Your task to perform on an android device: Toggle the flashlight Image 0: 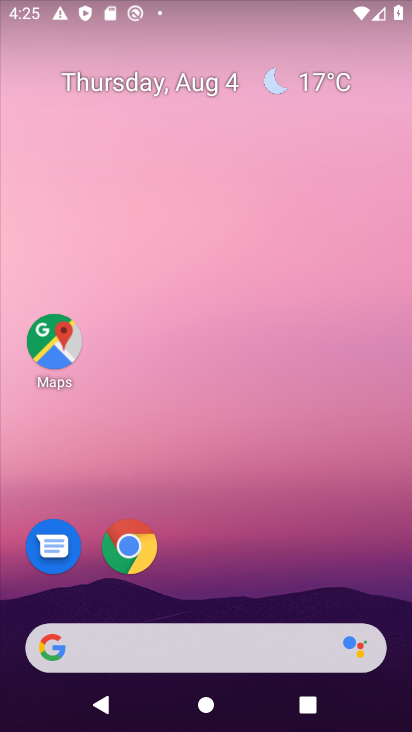
Step 0: drag from (185, 439) to (177, 160)
Your task to perform on an android device: Toggle the flashlight Image 1: 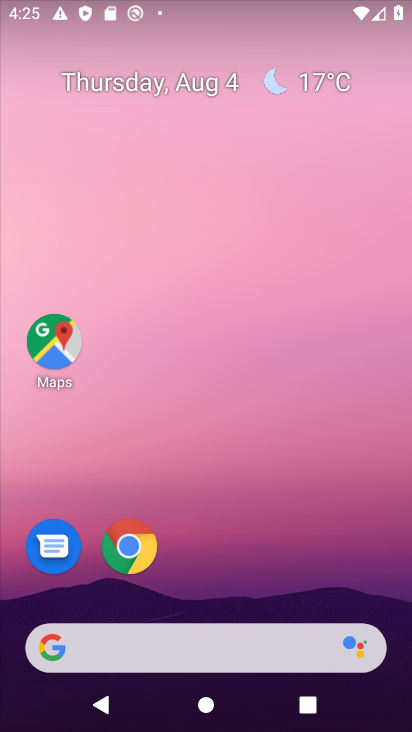
Step 1: drag from (186, 413) to (168, 167)
Your task to perform on an android device: Toggle the flashlight Image 2: 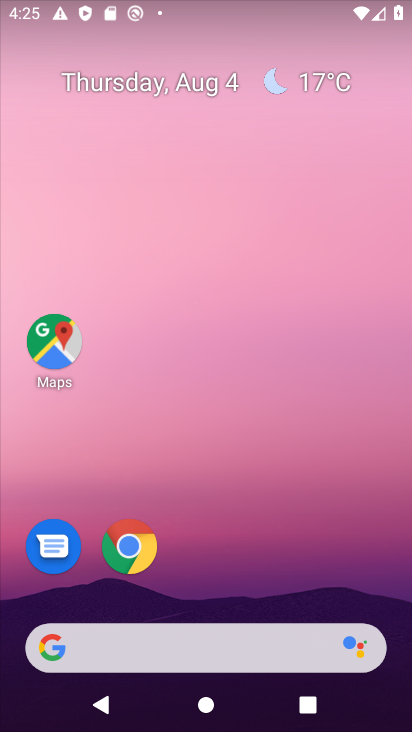
Step 2: drag from (188, 549) to (162, 342)
Your task to perform on an android device: Toggle the flashlight Image 3: 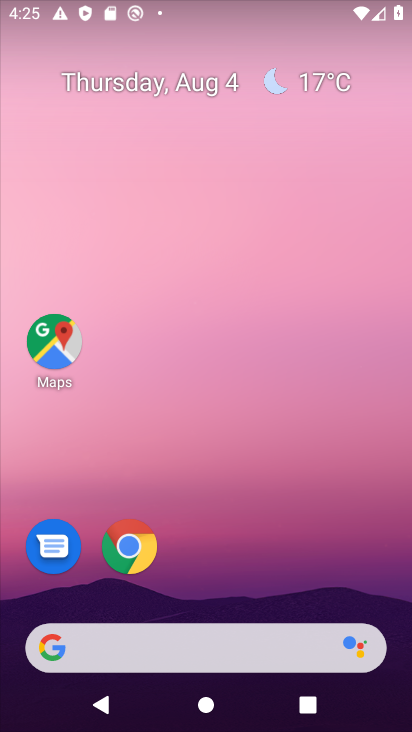
Step 3: drag from (190, 561) to (212, 79)
Your task to perform on an android device: Toggle the flashlight Image 4: 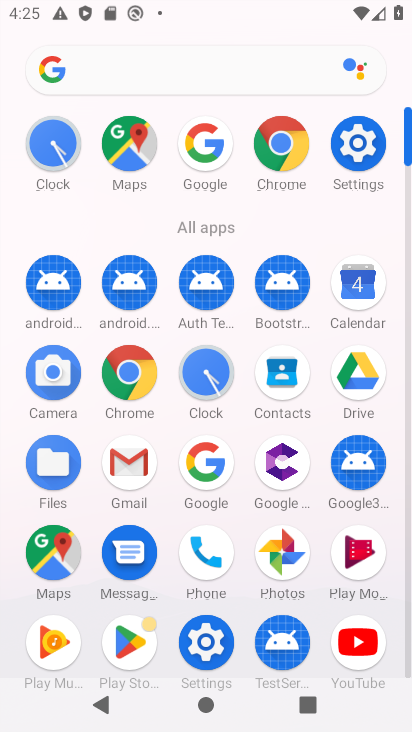
Step 4: click (368, 166)
Your task to perform on an android device: Toggle the flashlight Image 5: 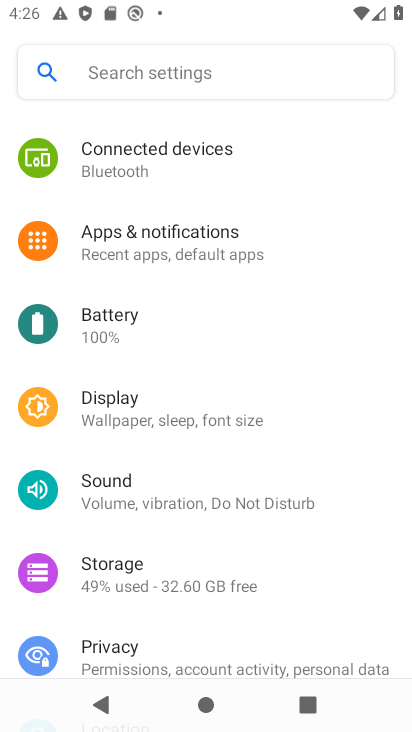
Step 5: task complete